Your task to perform on an android device: set default search engine in the chrome app Image 0: 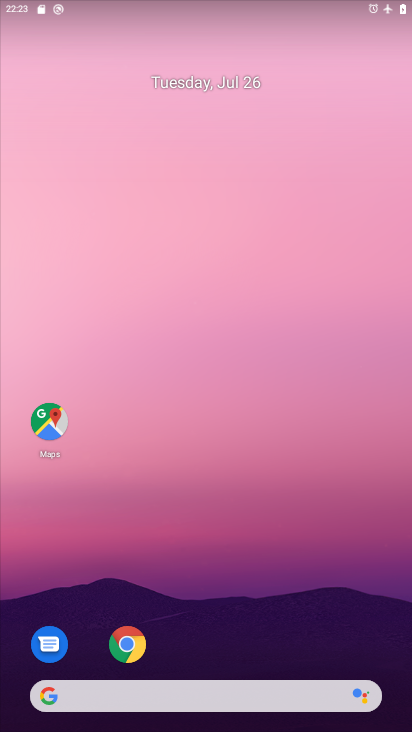
Step 0: click (119, 640)
Your task to perform on an android device: set default search engine in the chrome app Image 1: 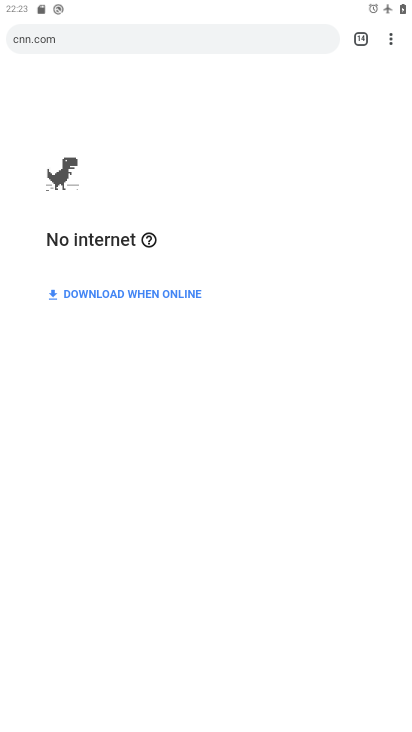
Step 1: click (394, 34)
Your task to perform on an android device: set default search engine in the chrome app Image 2: 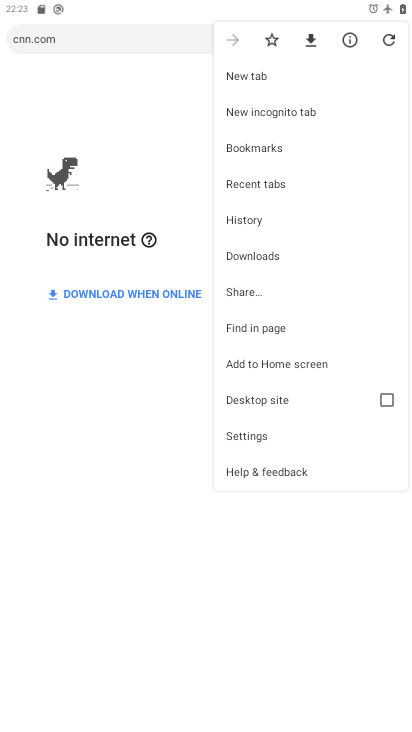
Step 2: click (232, 439)
Your task to perform on an android device: set default search engine in the chrome app Image 3: 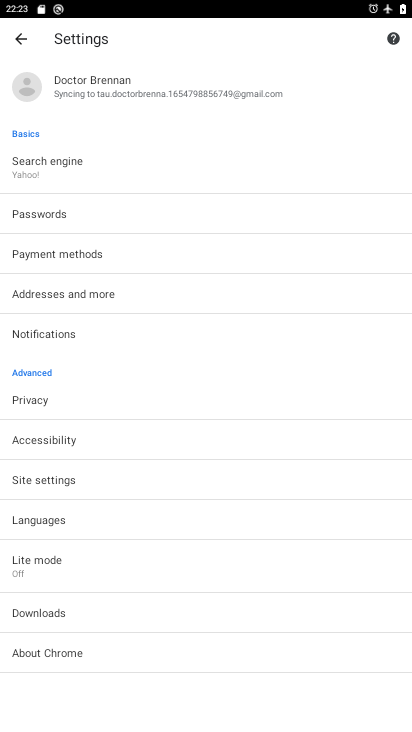
Step 3: click (93, 167)
Your task to perform on an android device: set default search engine in the chrome app Image 4: 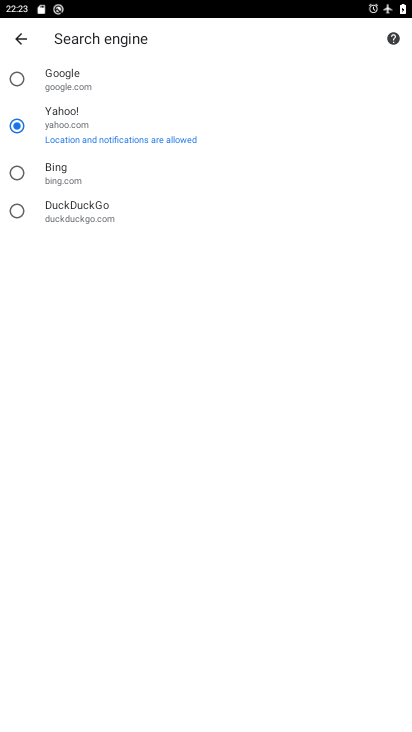
Step 4: click (46, 183)
Your task to perform on an android device: set default search engine in the chrome app Image 5: 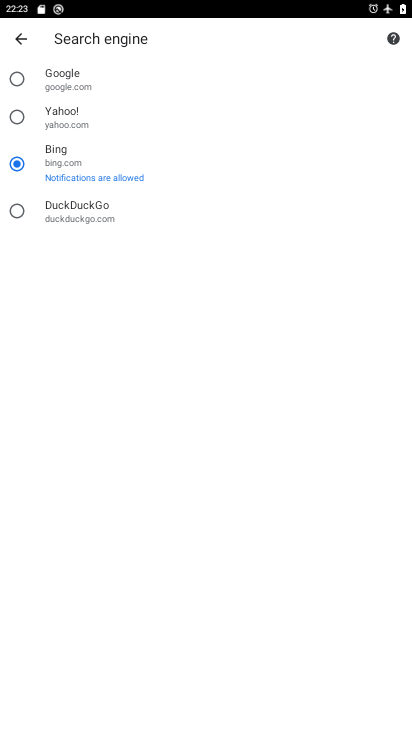
Step 5: task complete